Your task to perform on an android device: toggle javascript in the chrome app Image 0: 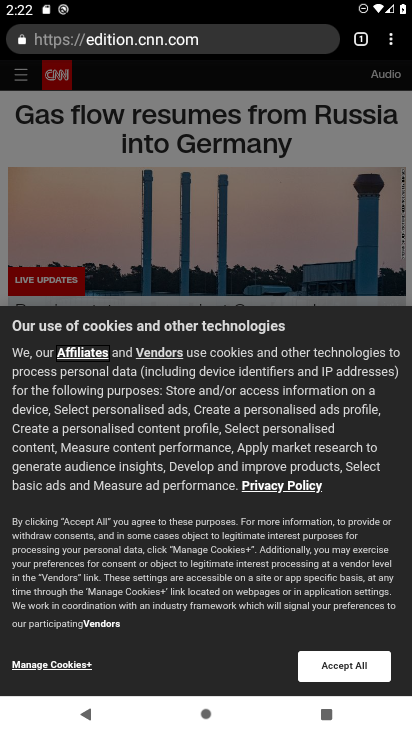
Step 0: click (388, 42)
Your task to perform on an android device: toggle javascript in the chrome app Image 1: 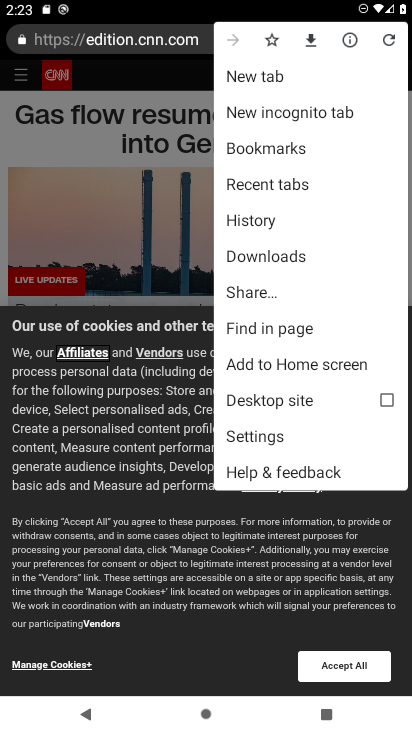
Step 1: click (281, 429)
Your task to perform on an android device: toggle javascript in the chrome app Image 2: 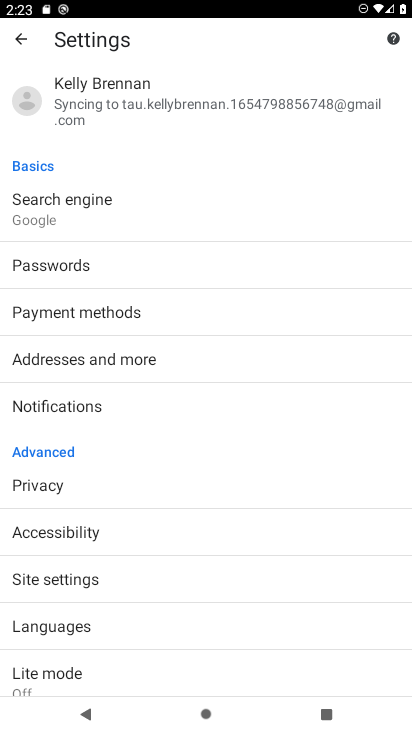
Step 2: click (93, 569)
Your task to perform on an android device: toggle javascript in the chrome app Image 3: 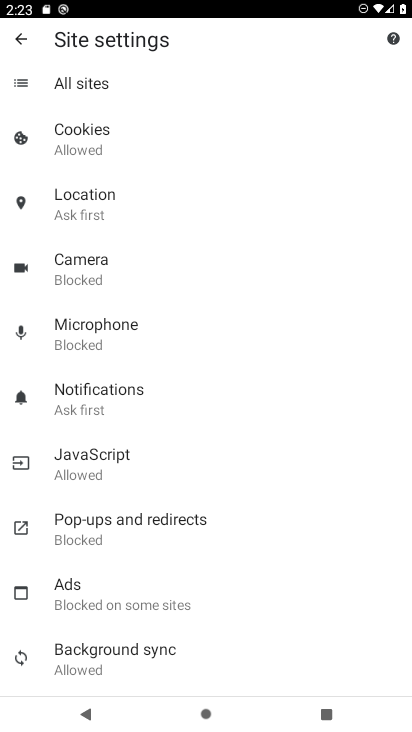
Step 3: click (99, 455)
Your task to perform on an android device: toggle javascript in the chrome app Image 4: 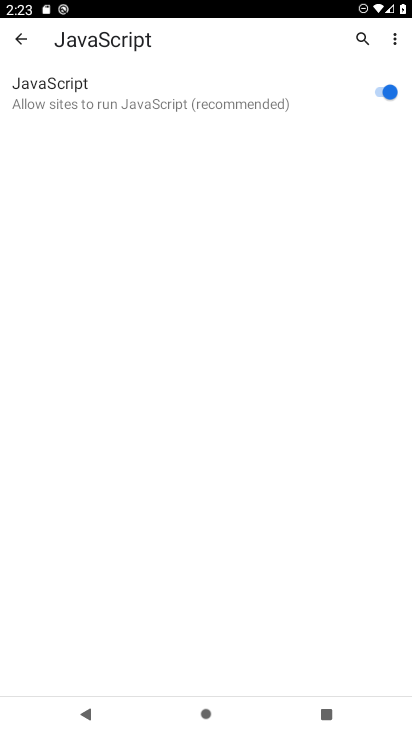
Step 4: click (378, 100)
Your task to perform on an android device: toggle javascript in the chrome app Image 5: 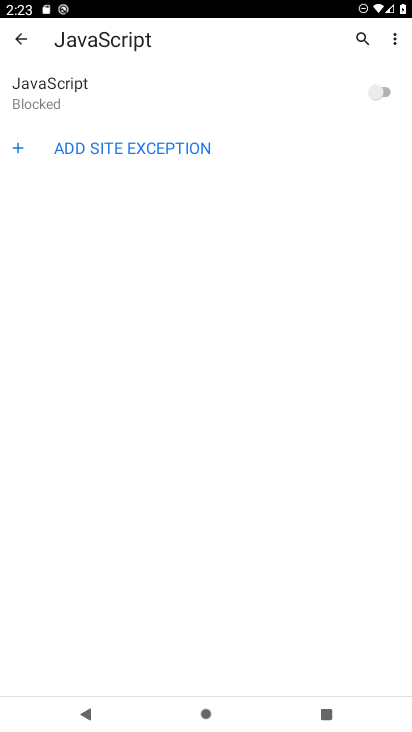
Step 5: task complete